Your task to perform on an android device: Open Amazon Image 0: 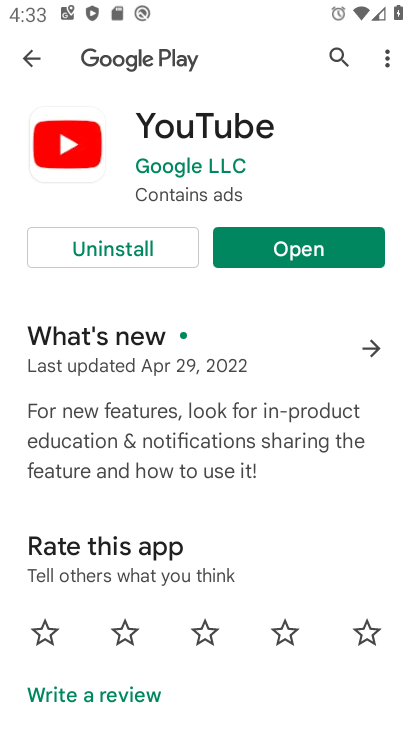
Step 0: press home button
Your task to perform on an android device: Open Amazon Image 1: 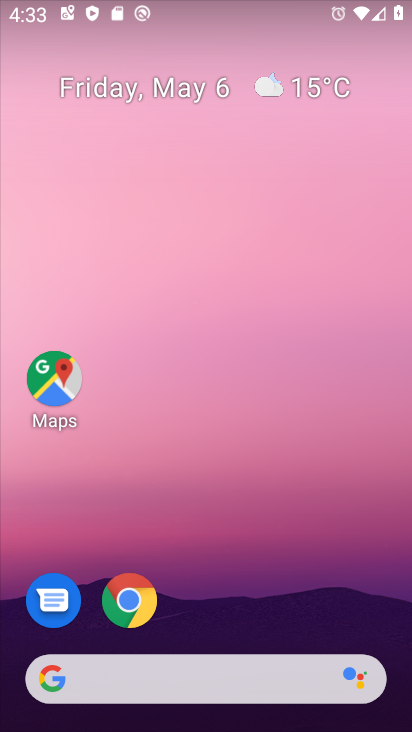
Step 1: click (138, 592)
Your task to perform on an android device: Open Amazon Image 2: 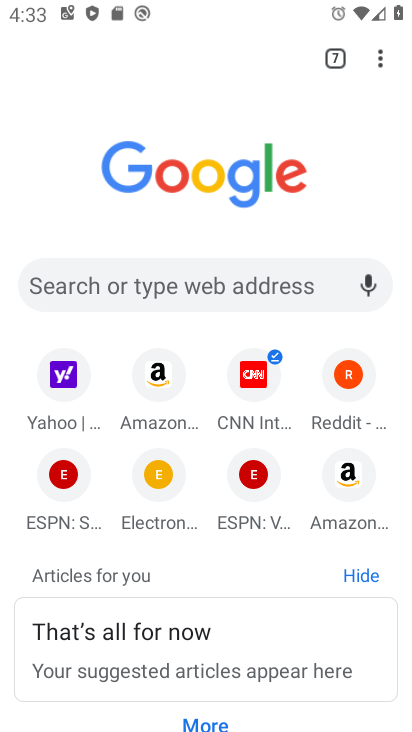
Step 2: click (159, 379)
Your task to perform on an android device: Open Amazon Image 3: 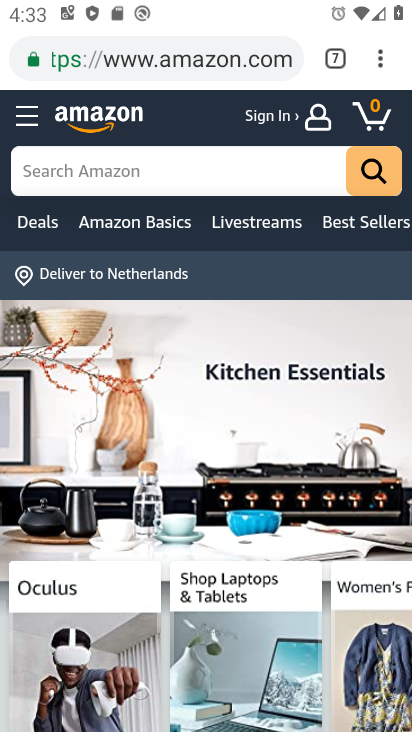
Step 3: task complete